Your task to perform on an android device: check google app version Image 0: 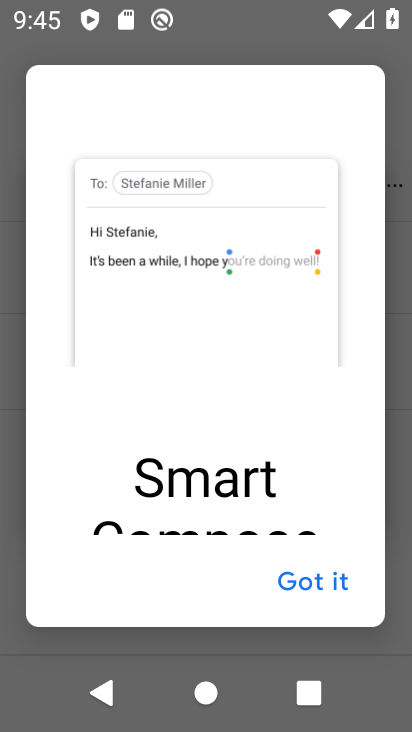
Step 0: press home button
Your task to perform on an android device: check google app version Image 1: 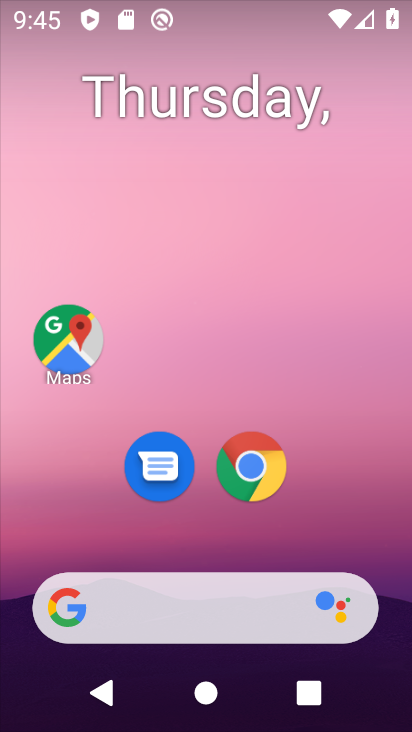
Step 1: drag from (209, 555) to (245, 81)
Your task to perform on an android device: check google app version Image 2: 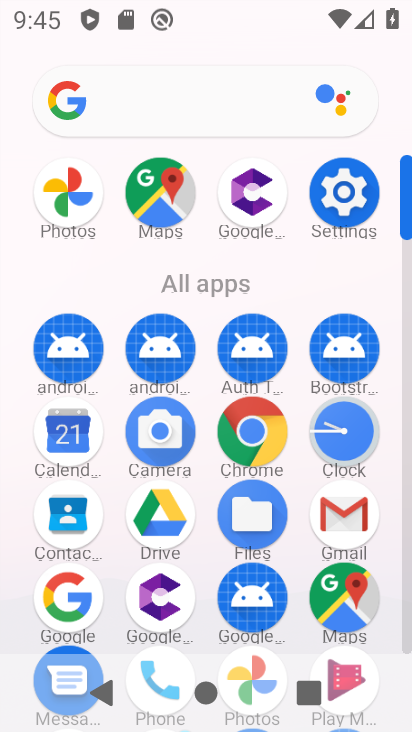
Step 2: click (65, 605)
Your task to perform on an android device: check google app version Image 3: 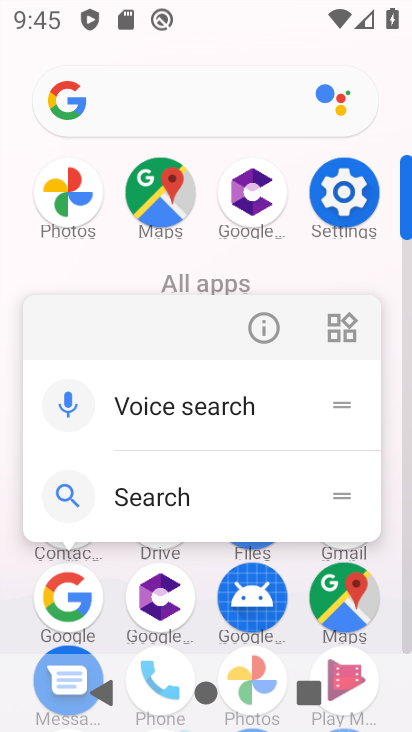
Step 3: click (275, 334)
Your task to perform on an android device: check google app version Image 4: 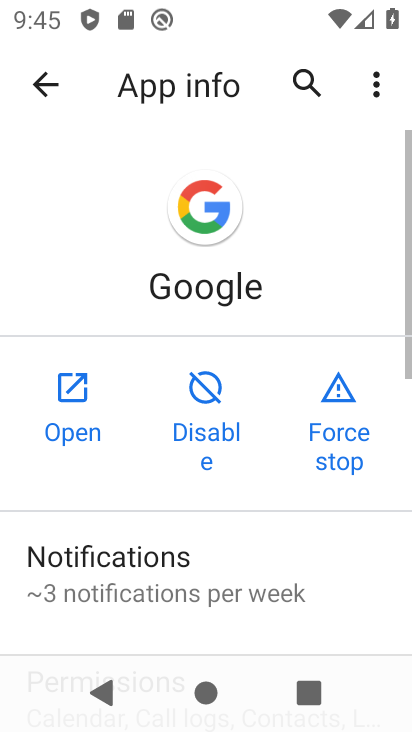
Step 4: drag from (221, 461) to (283, 102)
Your task to perform on an android device: check google app version Image 5: 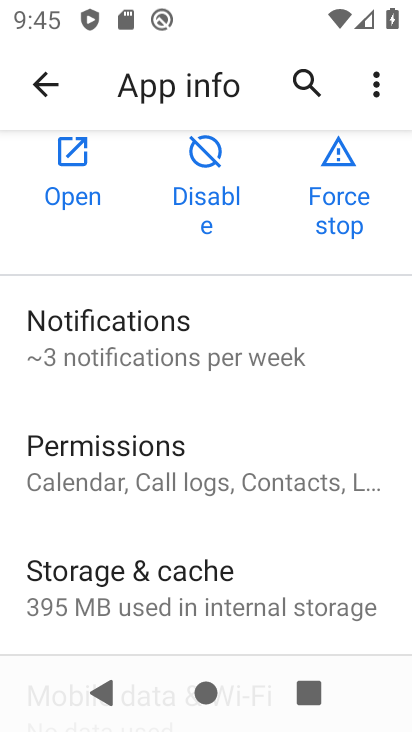
Step 5: drag from (216, 463) to (295, 59)
Your task to perform on an android device: check google app version Image 6: 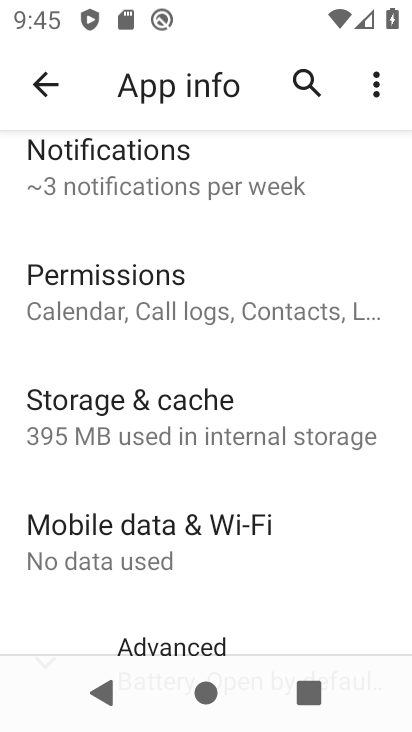
Step 6: drag from (206, 548) to (261, 147)
Your task to perform on an android device: check google app version Image 7: 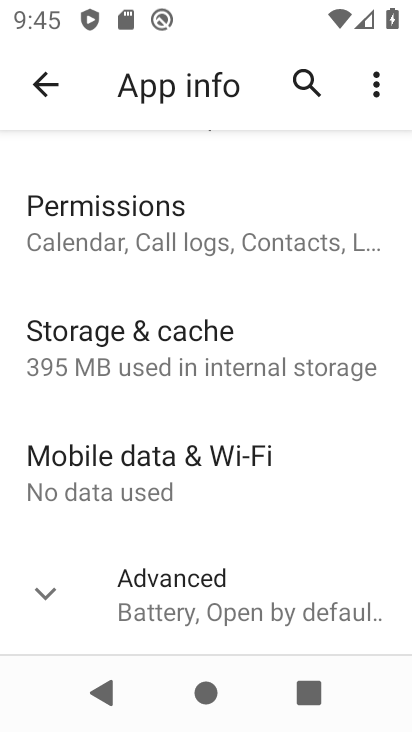
Step 7: click (207, 613)
Your task to perform on an android device: check google app version Image 8: 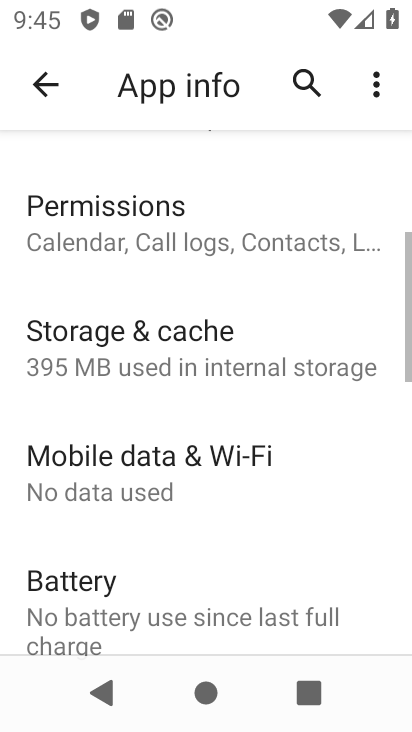
Step 8: task complete